Your task to perform on an android device: uninstall "AliExpress" Image 0: 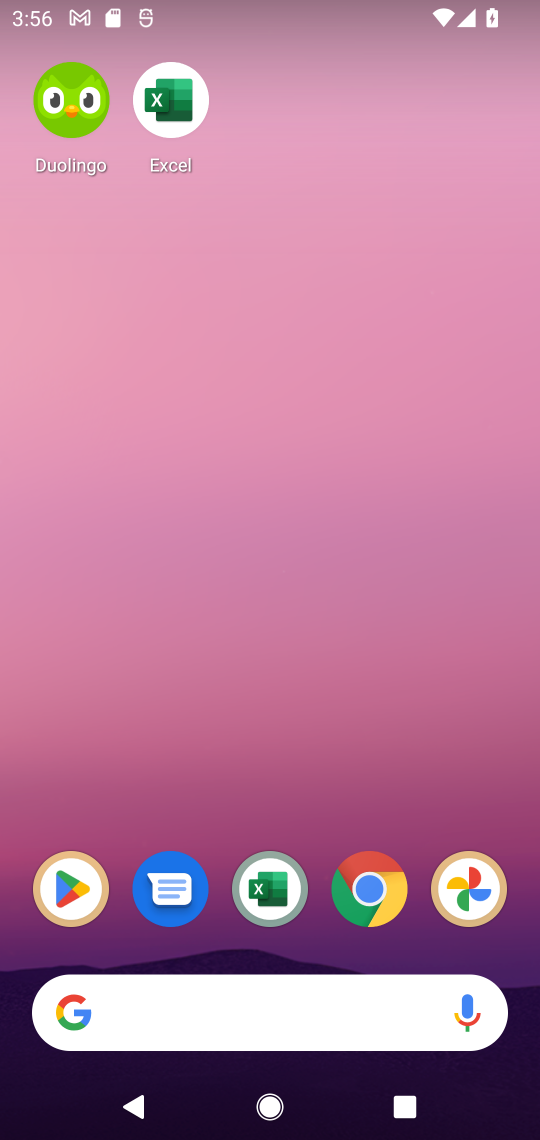
Step 0: press home button
Your task to perform on an android device: uninstall "AliExpress" Image 1: 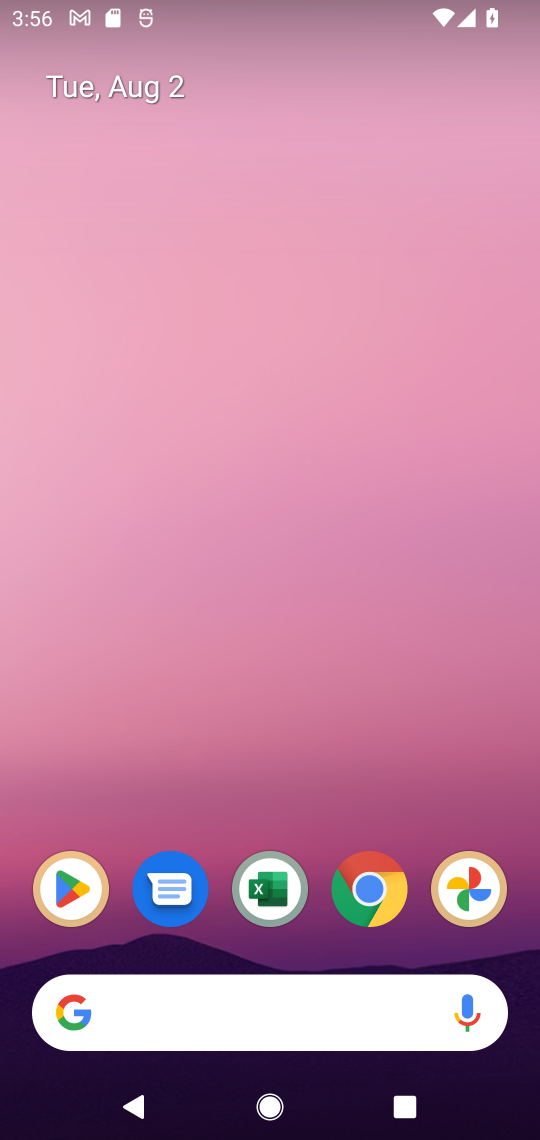
Step 1: drag from (399, 772) to (376, 84)
Your task to perform on an android device: uninstall "AliExpress" Image 2: 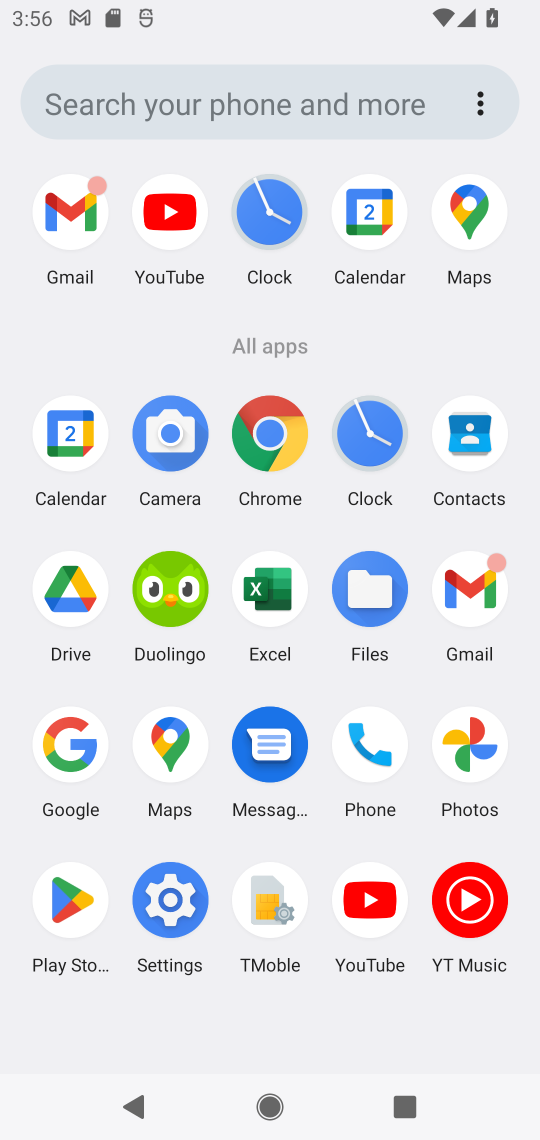
Step 2: click (77, 899)
Your task to perform on an android device: uninstall "AliExpress" Image 3: 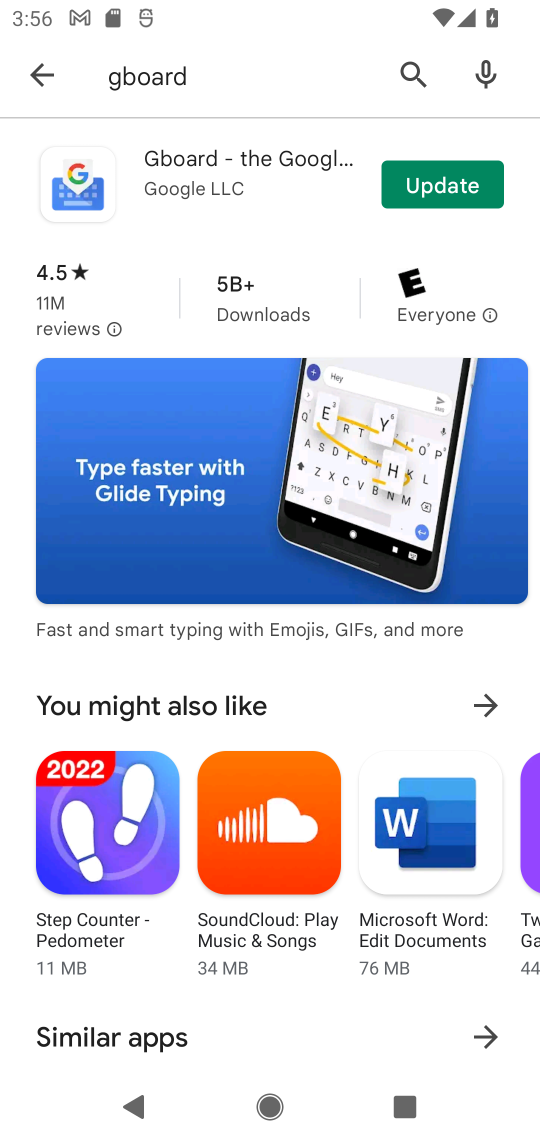
Step 3: click (413, 74)
Your task to perform on an android device: uninstall "AliExpress" Image 4: 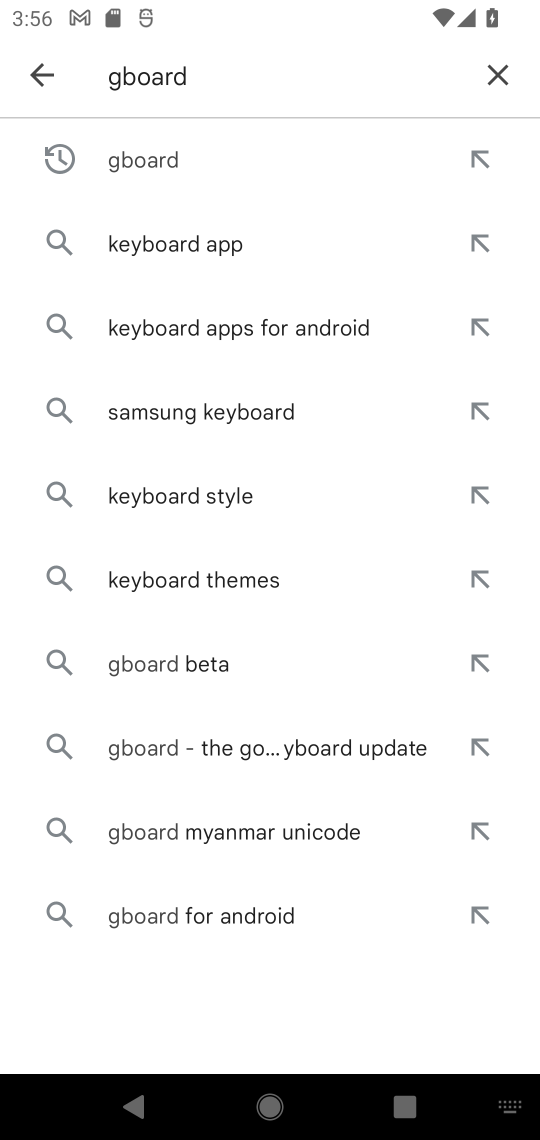
Step 4: click (510, 63)
Your task to perform on an android device: uninstall "AliExpress" Image 5: 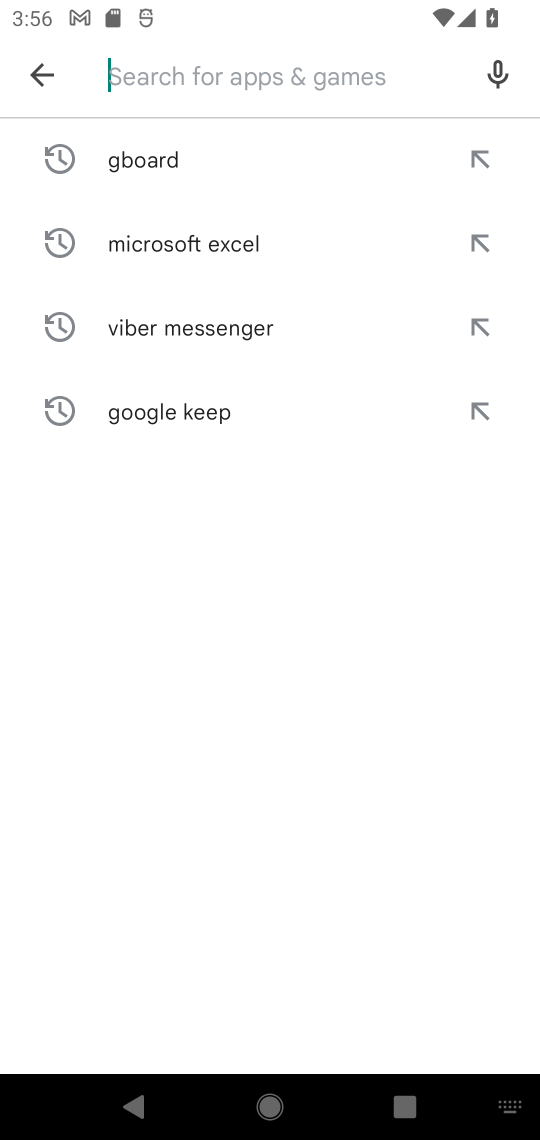
Step 5: type "aliexpress"
Your task to perform on an android device: uninstall "AliExpress" Image 6: 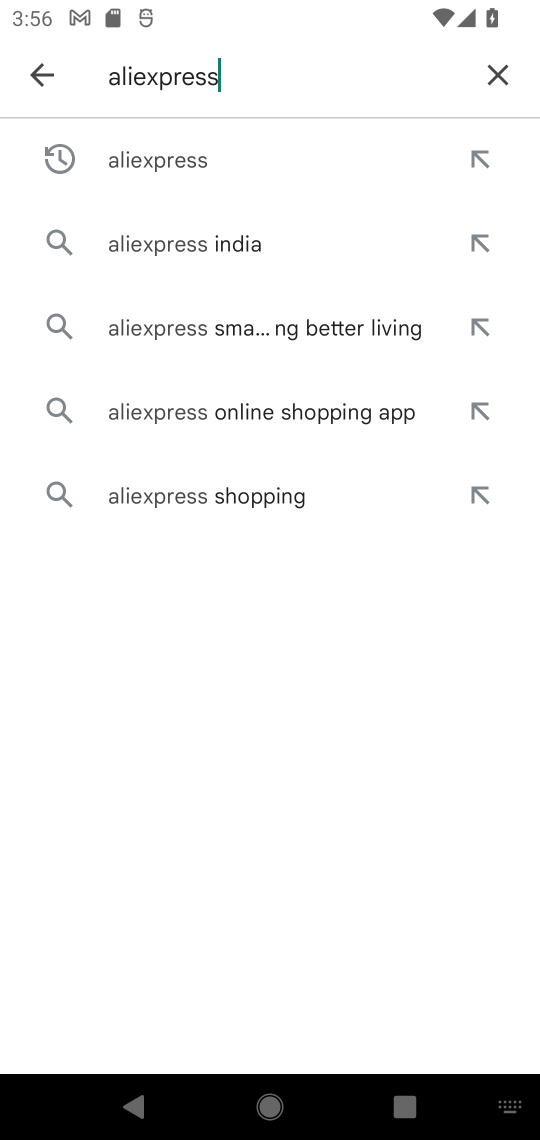
Step 6: click (252, 155)
Your task to perform on an android device: uninstall "AliExpress" Image 7: 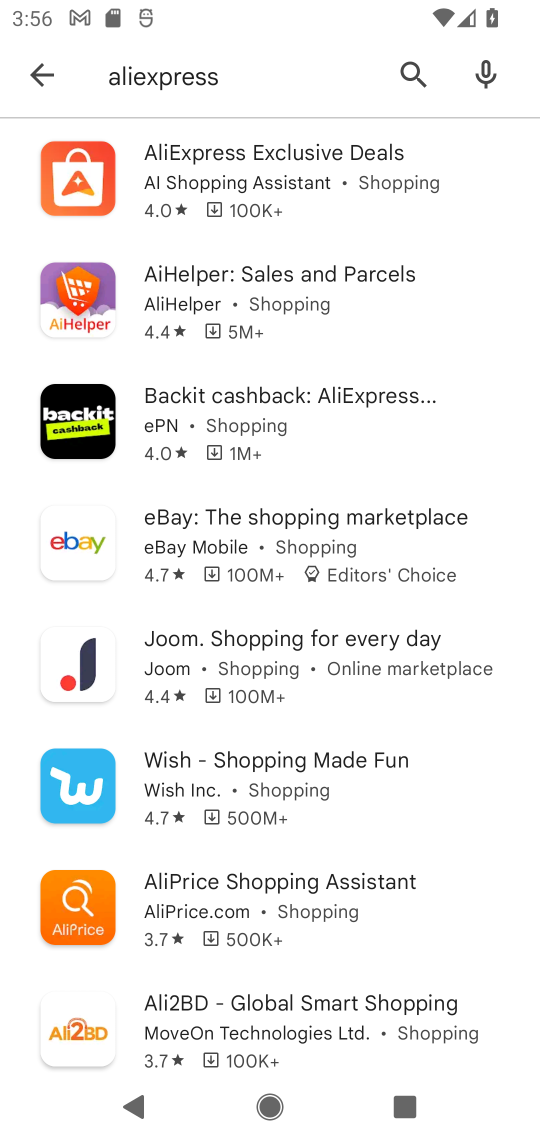
Step 7: task complete